Your task to perform on an android device: change the clock display to digital Image 0: 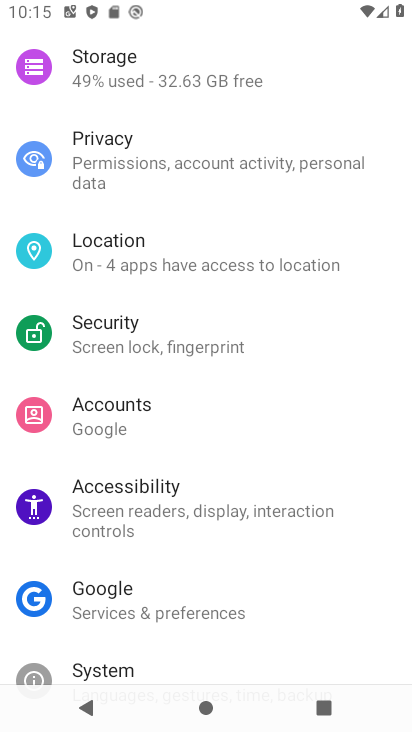
Step 0: press home button
Your task to perform on an android device: change the clock display to digital Image 1: 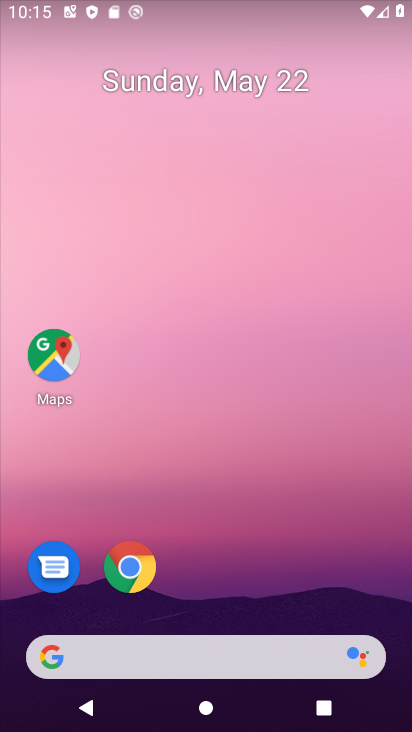
Step 1: drag from (214, 657) to (192, 169)
Your task to perform on an android device: change the clock display to digital Image 2: 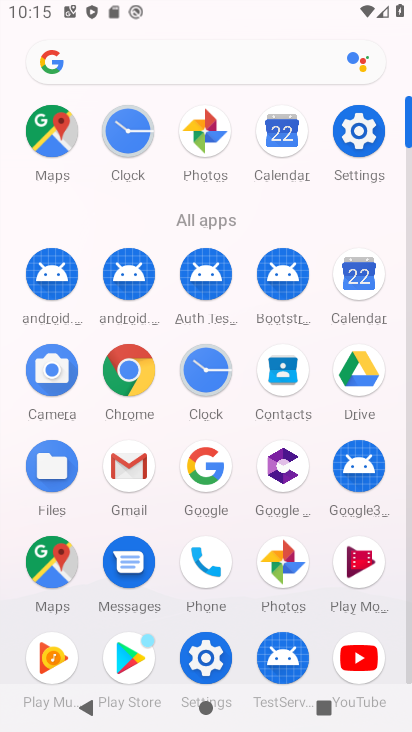
Step 2: click (208, 371)
Your task to perform on an android device: change the clock display to digital Image 3: 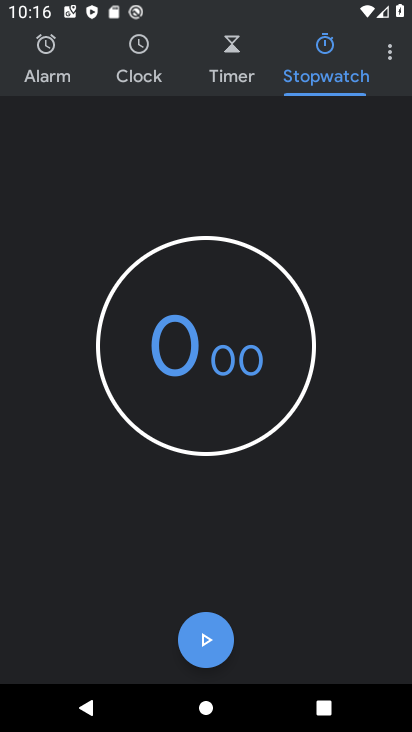
Step 3: click (395, 37)
Your task to perform on an android device: change the clock display to digital Image 4: 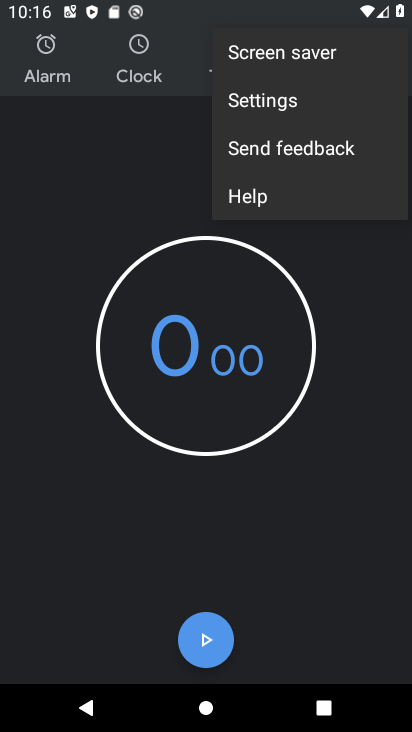
Step 4: click (309, 91)
Your task to perform on an android device: change the clock display to digital Image 5: 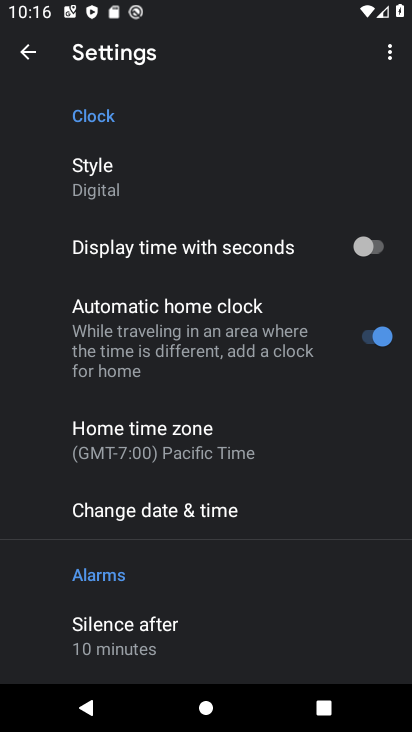
Step 5: click (122, 165)
Your task to perform on an android device: change the clock display to digital Image 6: 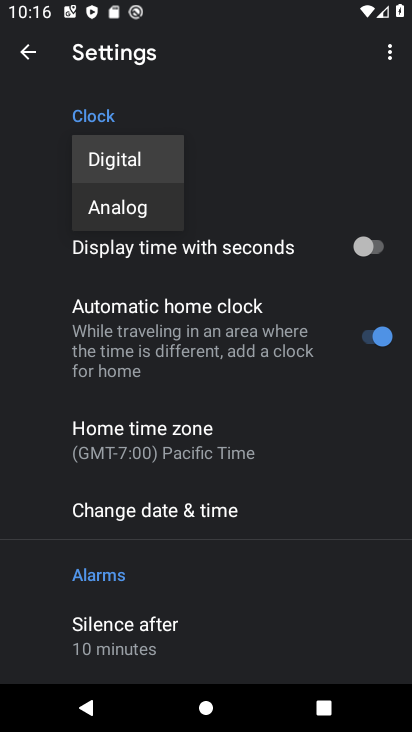
Step 6: click (128, 172)
Your task to perform on an android device: change the clock display to digital Image 7: 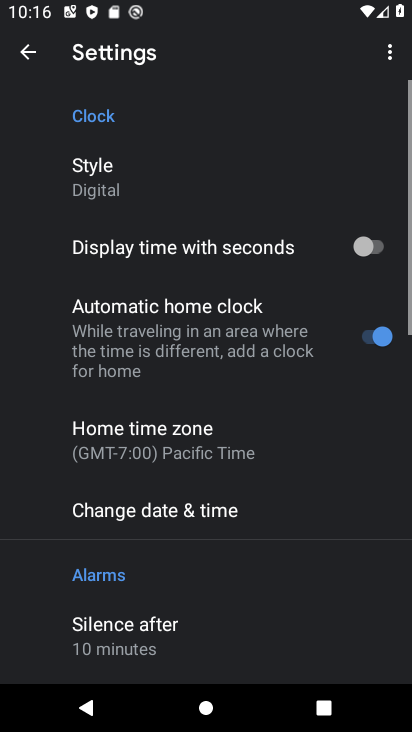
Step 7: task complete